Your task to perform on an android device: toggle sleep mode Image 0: 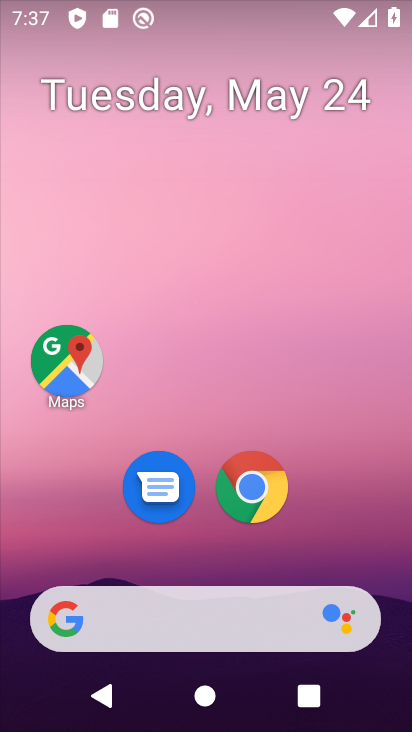
Step 0: drag from (304, 544) to (306, 138)
Your task to perform on an android device: toggle sleep mode Image 1: 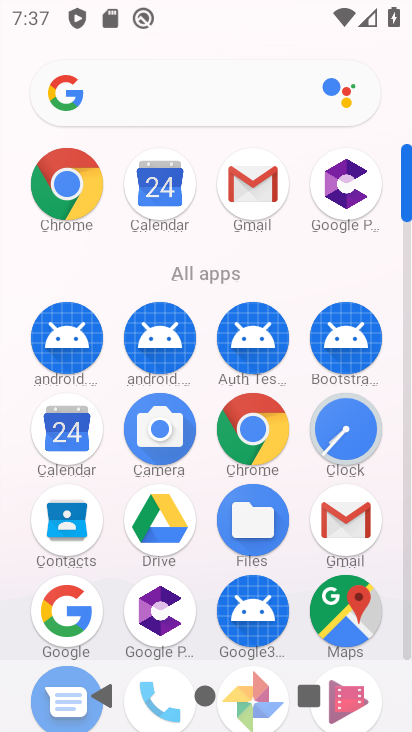
Step 1: drag from (315, 286) to (306, 42)
Your task to perform on an android device: toggle sleep mode Image 2: 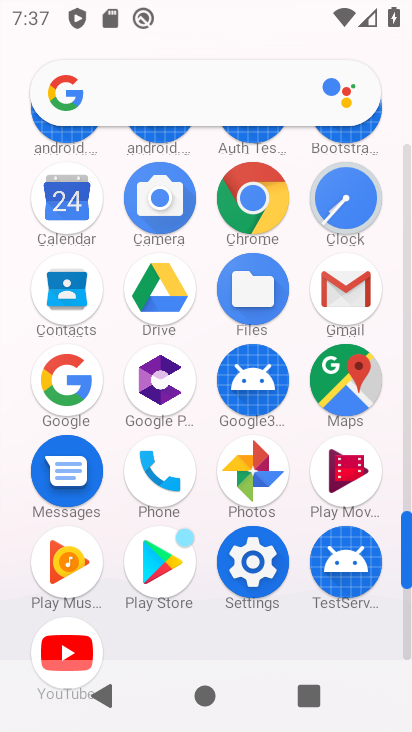
Step 2: click (258, 562)
Your task to perform on an android device: toggle sleep mode Image 3: 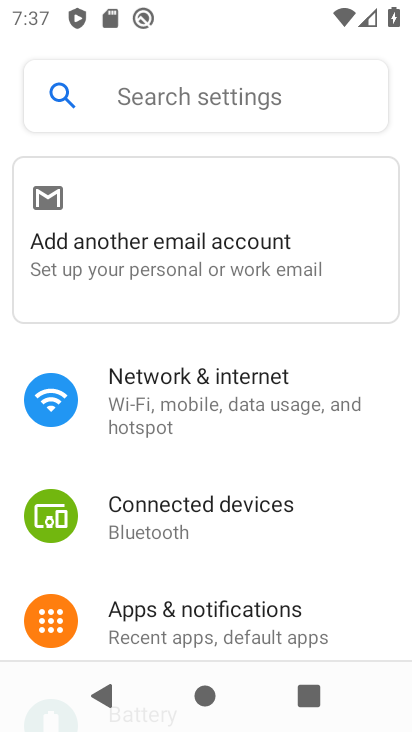
Step 3: drag from (307, 554) to (250, 106)
Your task to perform on an android device: toggle sleep mode Image 4: 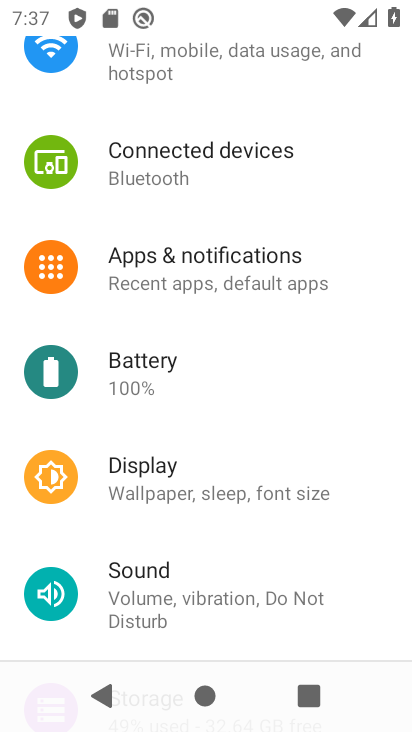
Step 4: click (121, 490)
Your task to perform on an android device: toggle sleep mode Image 5: 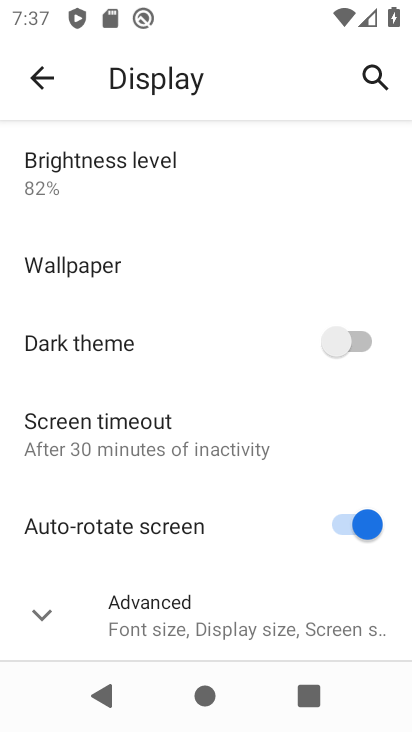
Step 5: click (84, 433)
Your task to perform on an android device: toggle sleep mode Image 6: 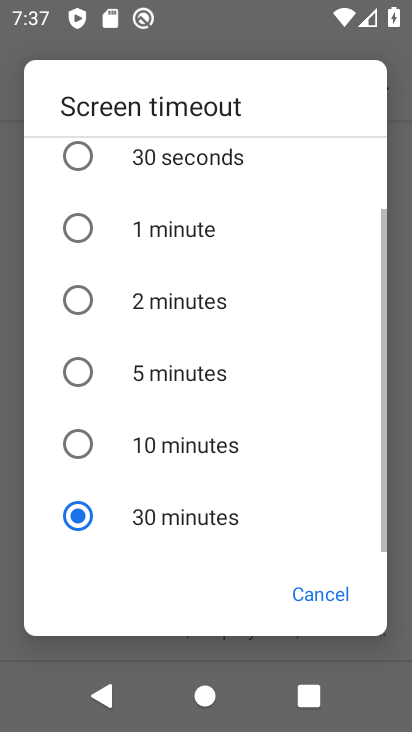
Step 6: click (177, 441)
Your task to perform on an android device: toggle sleep mode Image 7: 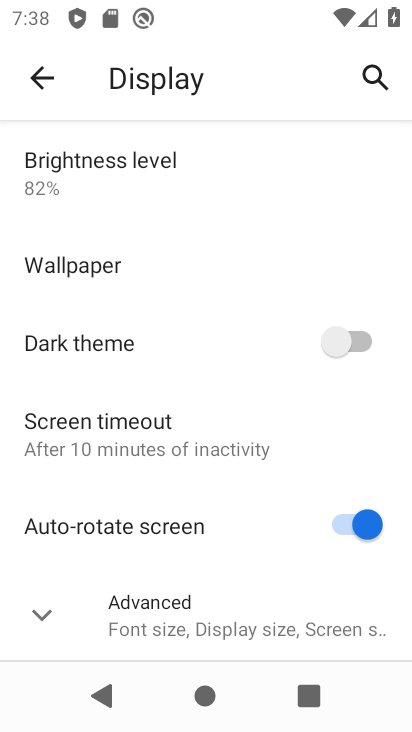
Step 7: task complete